Your task to perform on an android device: Check the news Image 0: 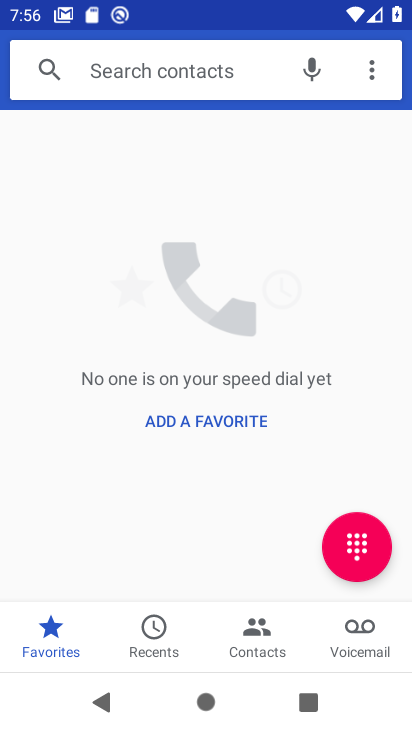
Step 0: press home button
Your task to perform on an android device: Check the news Image 1: 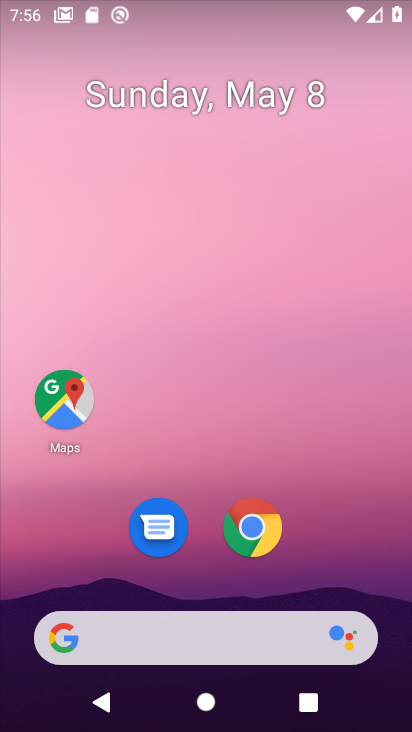
Step 1: click (231, 640)
Your task to perform on an android device: Check the news Image 2: 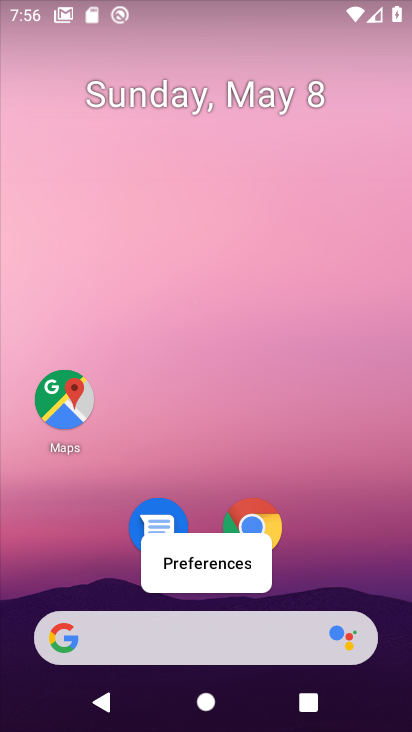
Step 2: click (231, 640)
Your task to perform on an android device: Check the news Image 3: 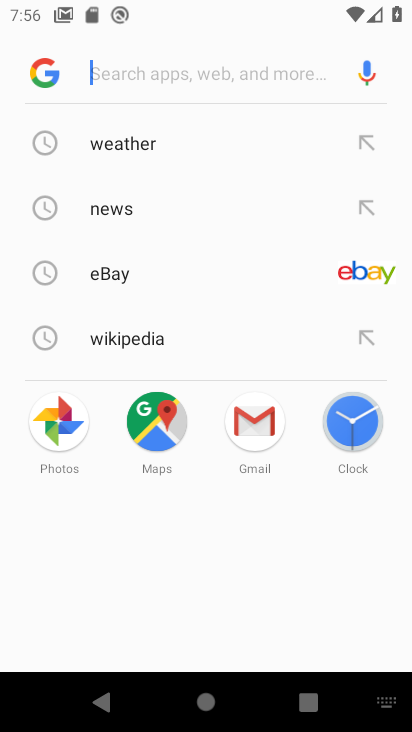
Step 3: click (159, 202)
Your task to perform on an android device: Check the news Image 4: 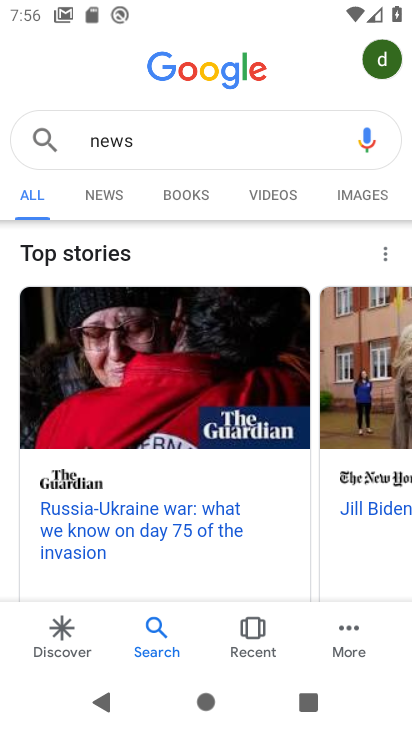
Step 4: task complete